Your task to perform on an android device: Toggle the flashlight Image 0: 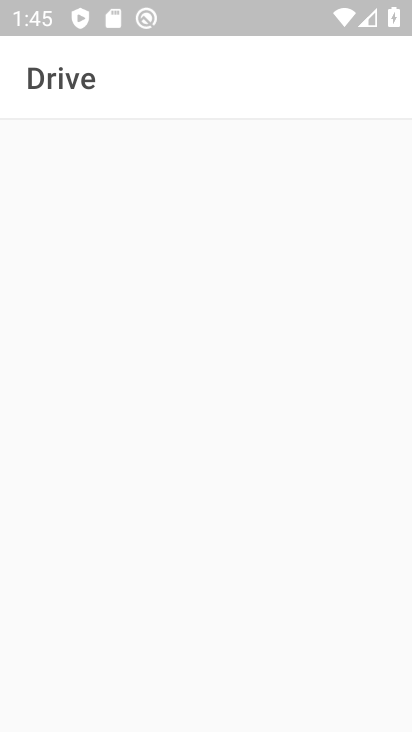
Step 0: task impossible